Your task to perform on an android device: turn on translation in the chrome app Image 0: 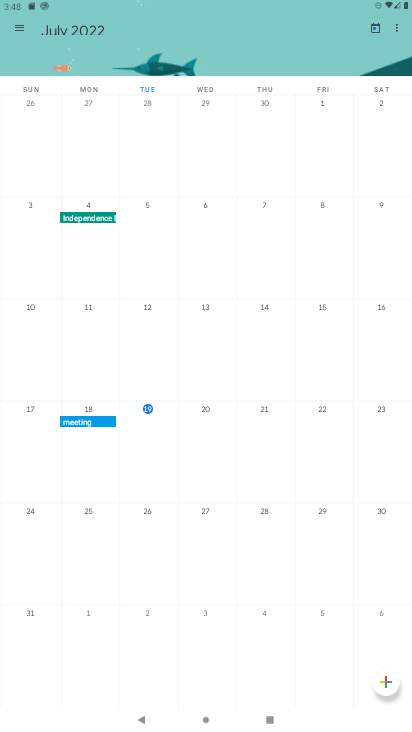
Step 0: press home button
Your task to perform on an android device: turn on translation in the chrome app Image 1: 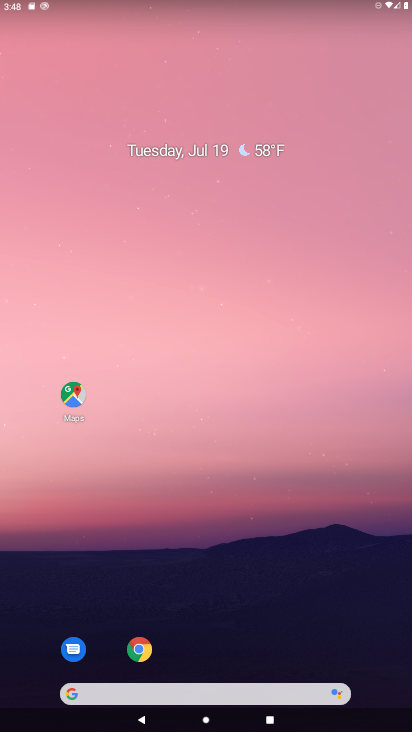
Step 1: drag from (236, 728) to (198, 101)
Your task to perform on an android device: turn on translation in the chrome app Image 2: 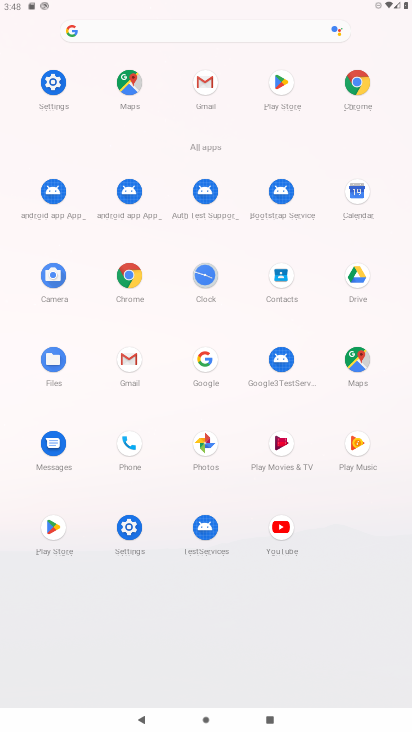
Step 2: click (126, 277)
Your task to perform on an android device: turn on translation in the chrome app Image 3: 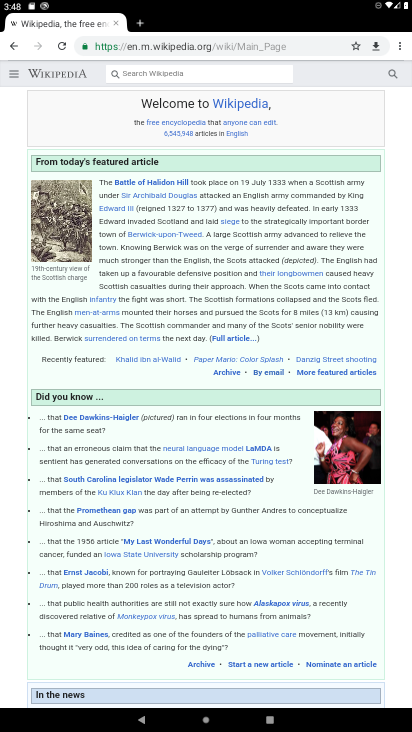
Step 3: click (399, 47)
Your task to perform on an android device: turn on translation in the chrome app Image 4: 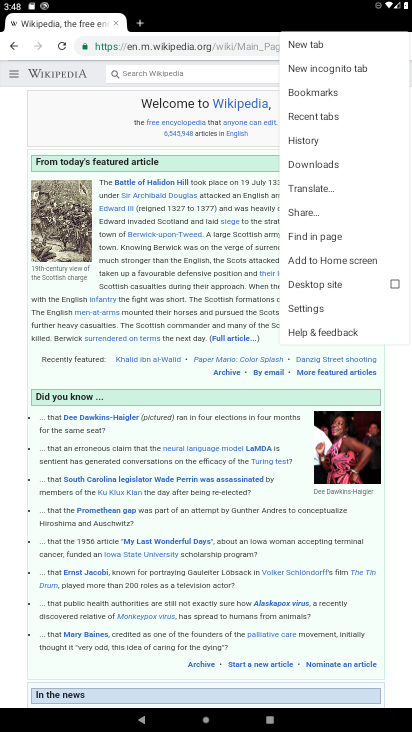
Step 4: click (305, 305)
Your task to perform on an android device: turn on translation in the chrome app Image 5: 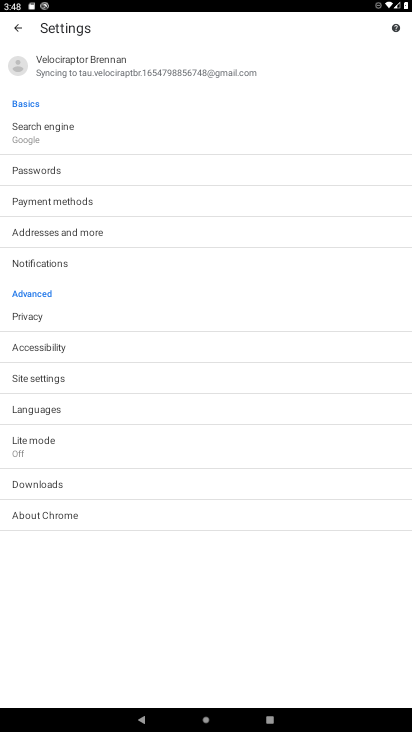
Step 5: click (46, 406)
Your task to perform on an android device: turn on translation in the chrome app Image 6: 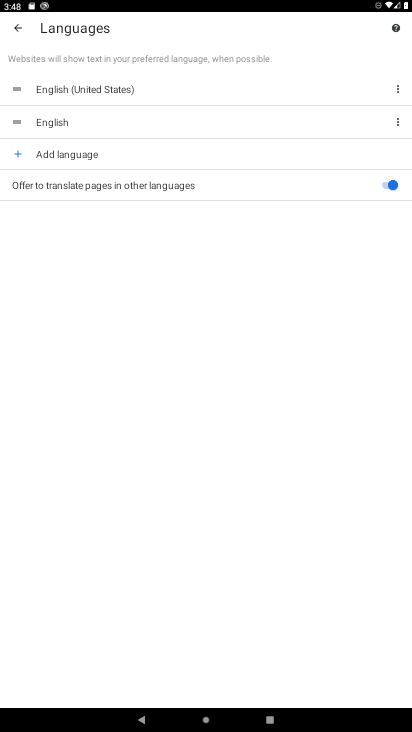
Step 6: task complete